Your task to perform on an android device: Open the web browser Image 0: 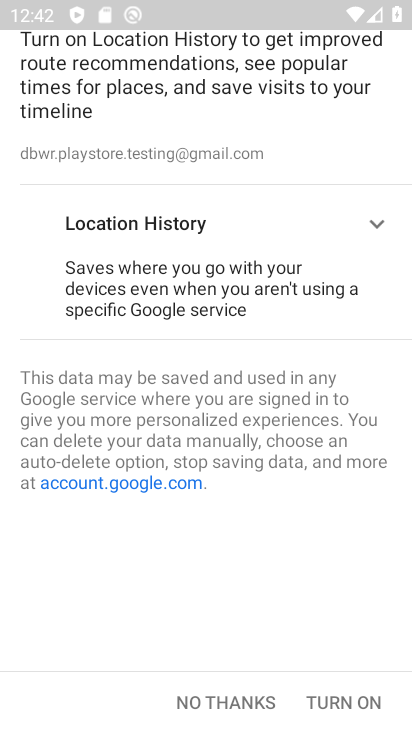
Step 0: press home button
Your task to perform on an android device: Open the web browser Image 1: 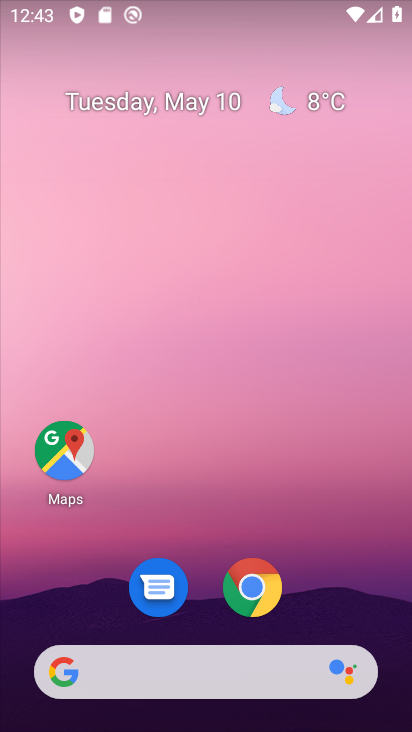
Step 1: click (264, 577)
Your task to perform on an android device: Open the web browser Image 2: 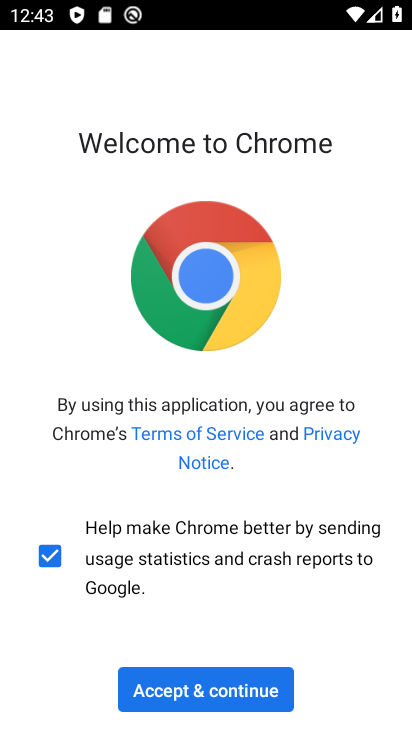
Step 2: click (219, 687)
Your task to perform on an android device: Open the web browser Image 3: 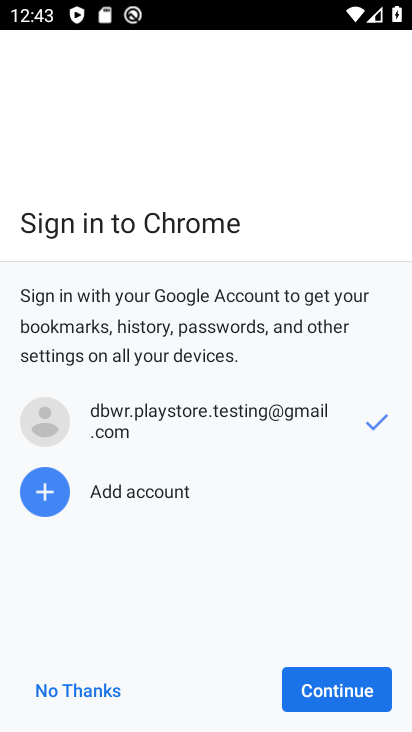
Step 3: click (323, 707)
Your task to perform on an android device: Open the web browser Image 4: 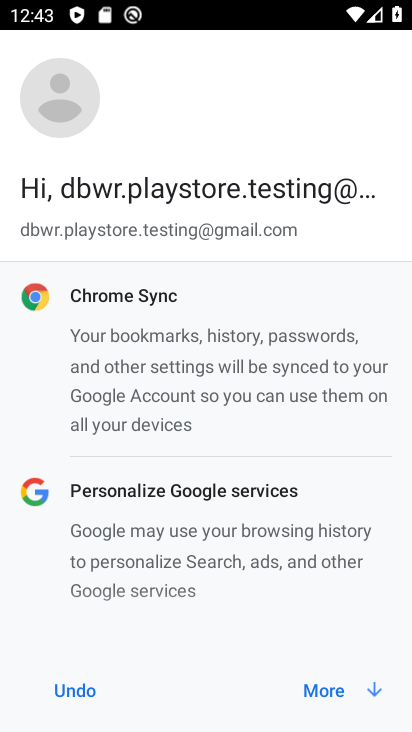
Step 4: click (321, 687)
Your task to perform on an android device: Open the web browser Image 5: 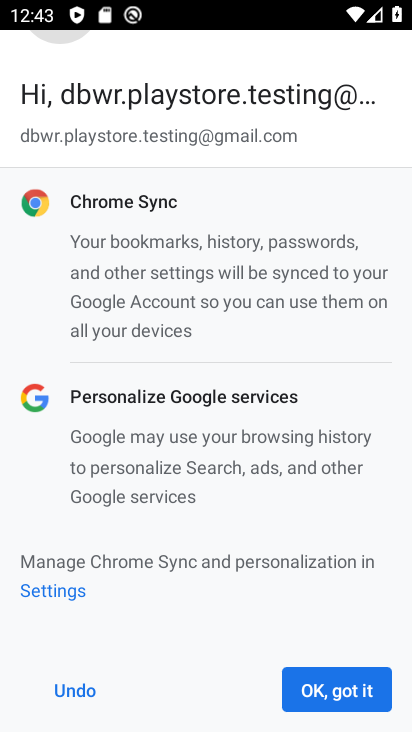
Step 5: click (321, 687)
Your task to perform on an android device: Open the web browser Image 6: 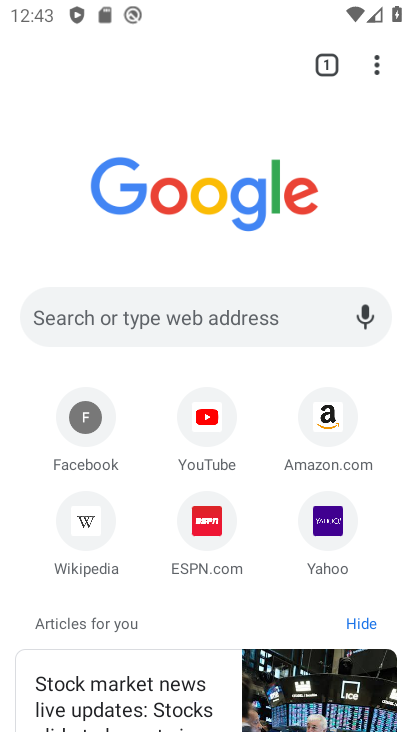
Step 6: task complete